Your task to perform on an android device: Open eBay Image 0: 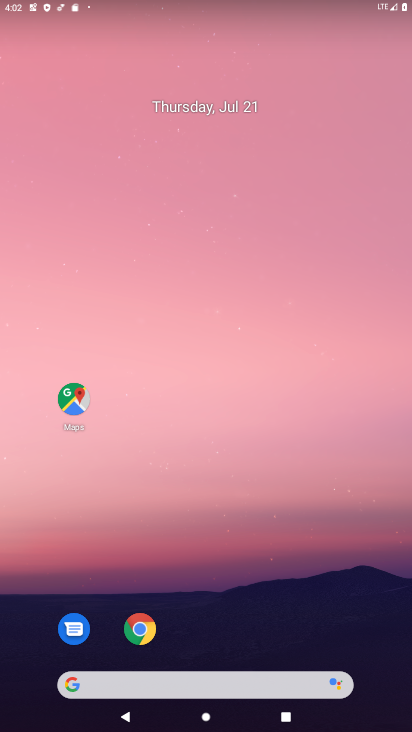
Step 0: click (145, 629)
Your task to perform on an android device: Open eBay Image 1: 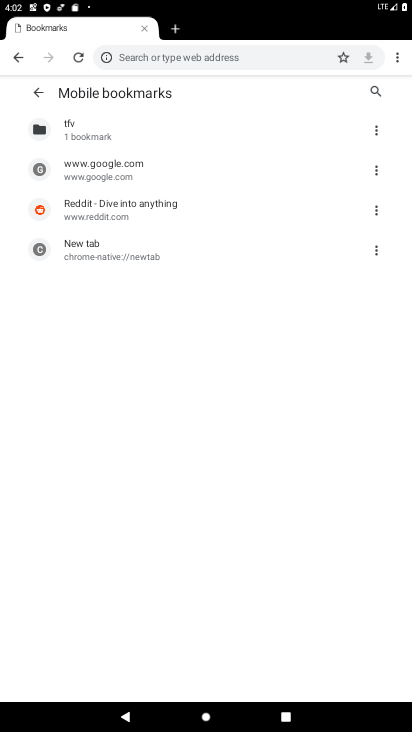
Step 1: click (174, 27)
Your task to perform on an android device: Open eBay Image 2: 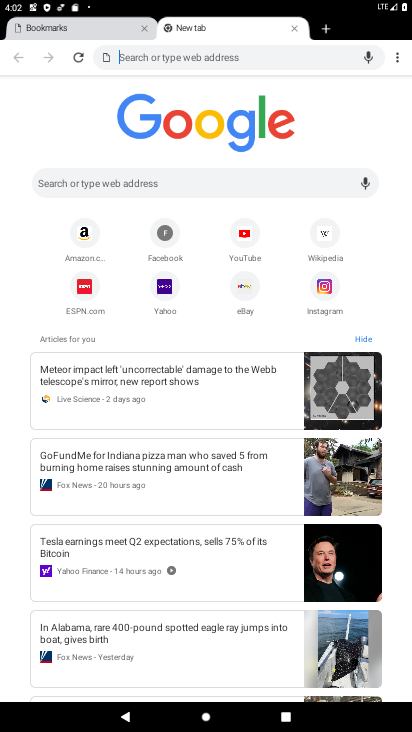
Step 2: click (245, 280)
Your task to perform on an android device: Open eBay Image 3: 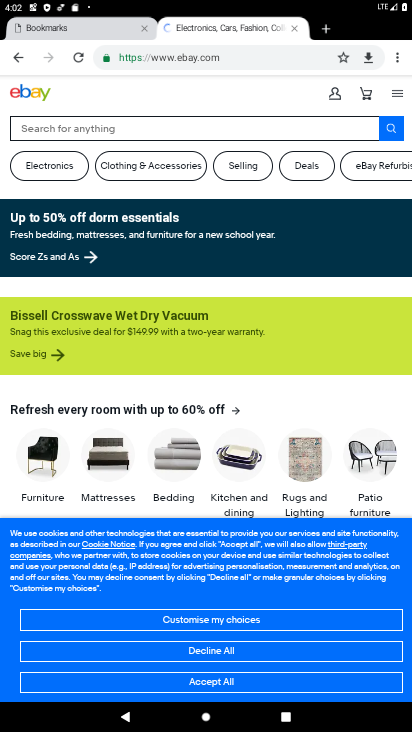
Step 3: task complete